Your task to perform on an android device: Open sound settings Image 0: 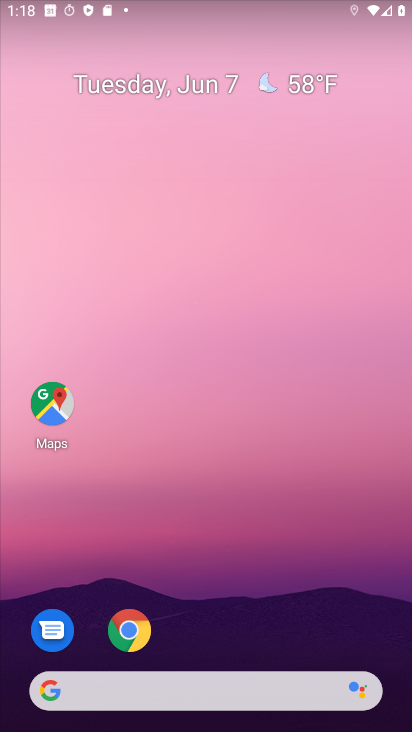
Step 0: drag from (202, 632) to (316, 5)
Your task to perform on an android device: Open sound settings Image 1: 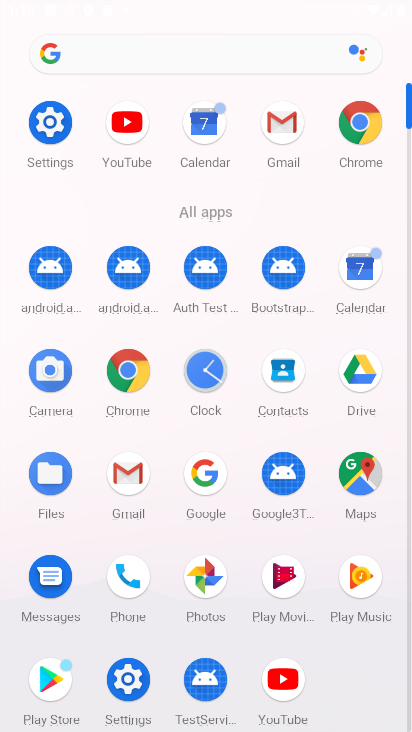
Step 1: click (123, 683)
Your task to perform on an android device: Open sound settings Image 2: 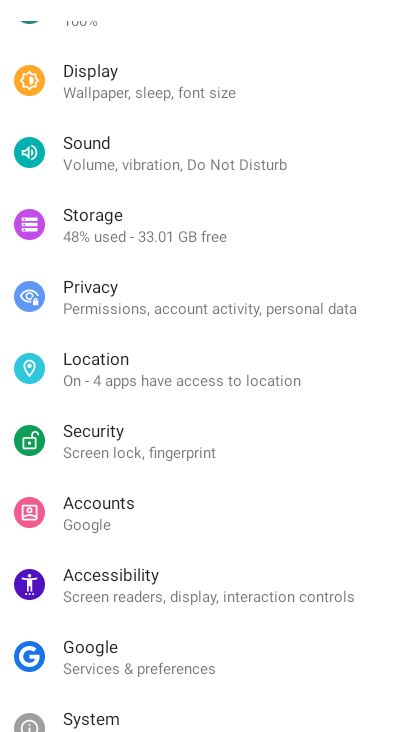
Step 2: click (129, 162)
Your task to perform on an android device: Open sound settings Image 3: 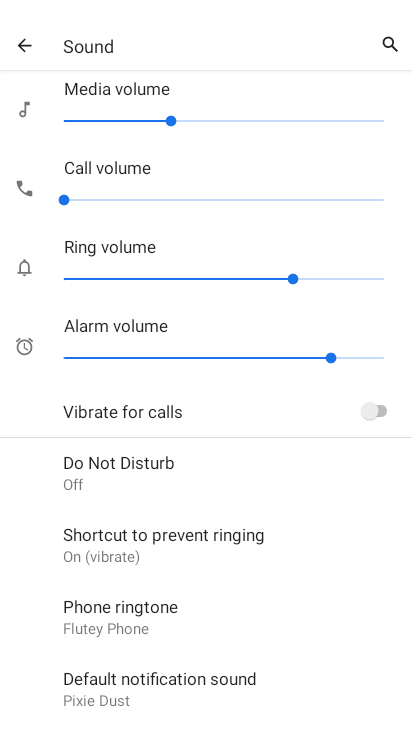
Step 3: task complete